Your task to perform on an android device: Search for Italian restaurants on Maps Image 0: 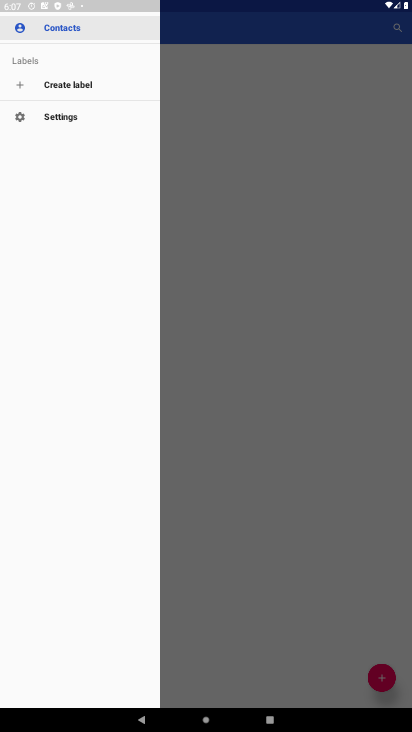
Step 0: press home button
Your task to perform on an android device: Search for Italian restaurants on Maps Image 1: 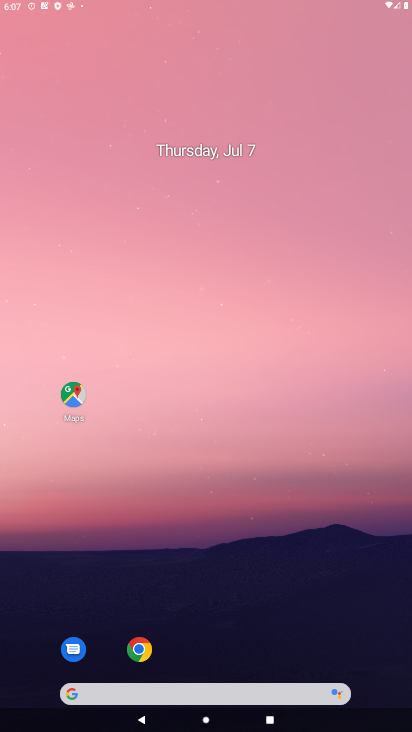
Step 1: drag from (387, 308) to (316, 58)
Your task to perform on an android device: Search for Italian restaurants on Maps Image 2: 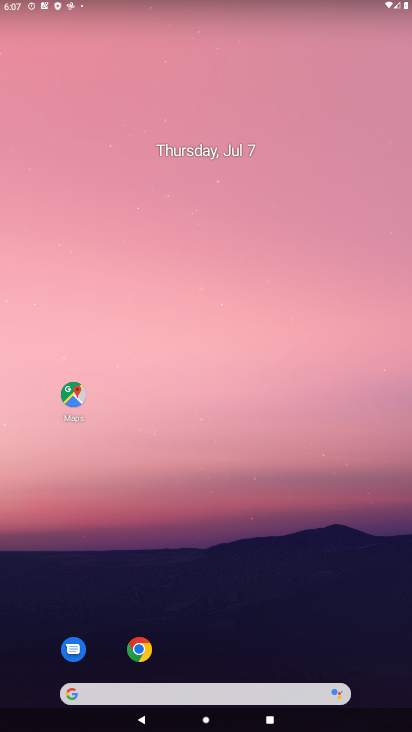
Step 2: drag from (364, 589) to (237, 3)
Your task to perform on an android device: Search for Italian restaurants on Maps Image 3: 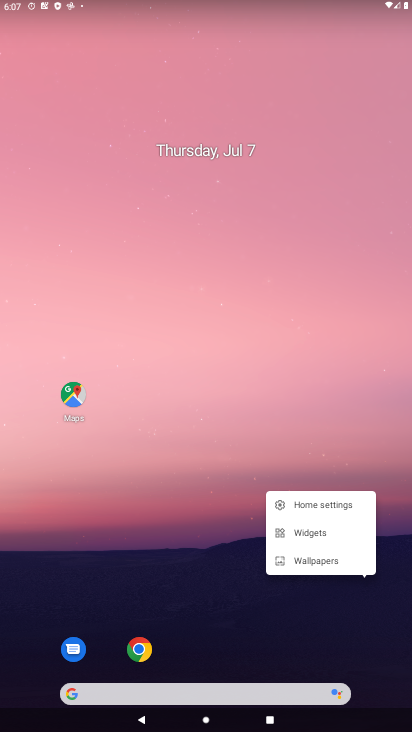
Step 3: drag from (259, 428) to (251, 16)
Your task to perform on an android device: Search for Italian restaurants on Maps Image 4: 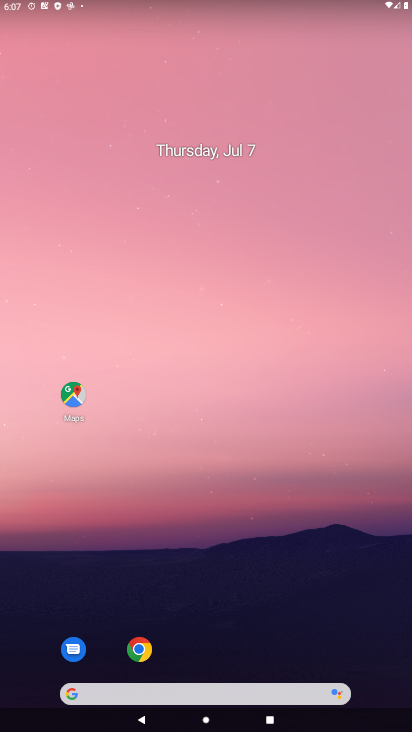
Step 4: drag from (294, 613) to (181, 64)
Your task to perform on an android device: Search for Italian restaurants on Maps Image 5: 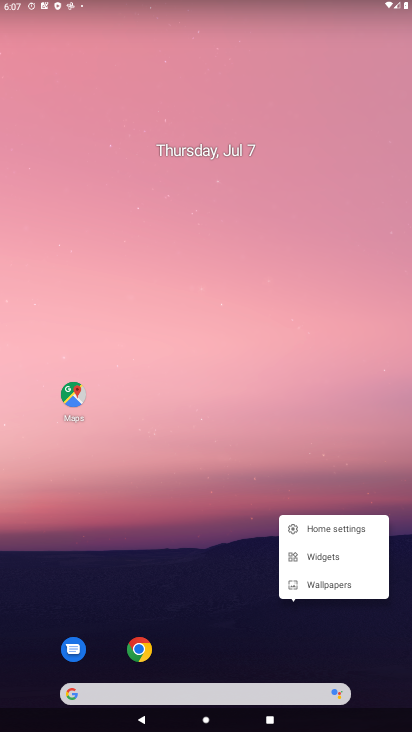
Step 5: click (339, 628)
Your task to perform on an android device: Search for Italian restaurants on Maps Image 6: 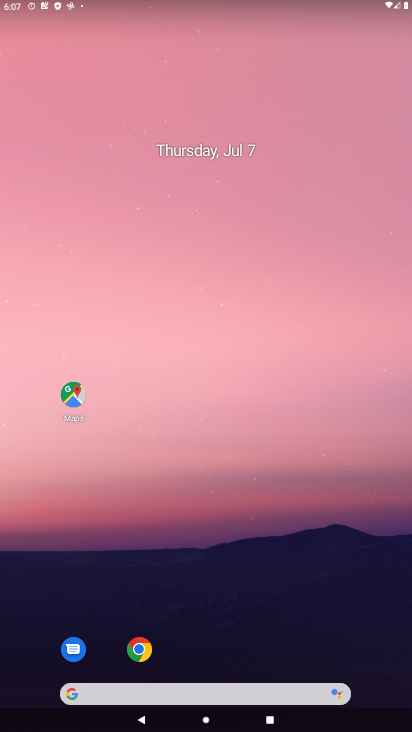
Step 6: drag from (369, 716) to (308, 34)
Your task to perform on an android device: Search for Italian restaurants on Maps Image 7: 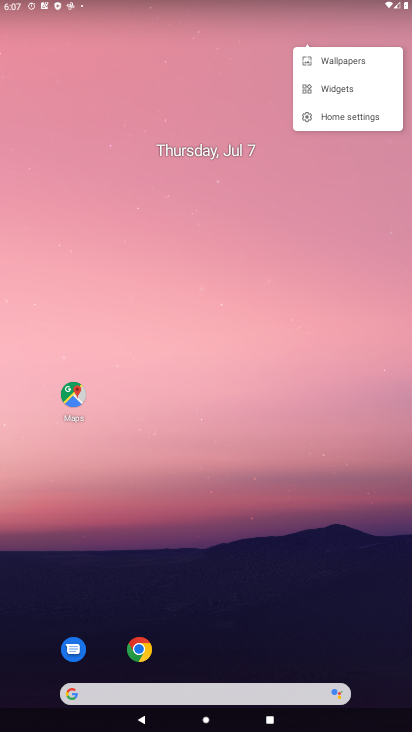
Step 7: click (76, 395)
Your task to perform on an android device: Search for Italian restaurants on Maps Image 8: 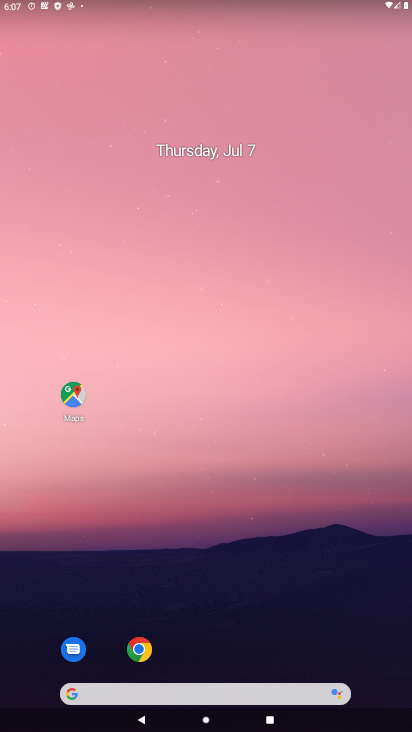
Step 8: click (77, 392)
Your task to perform on an android device: Search for Italian restaurants on Maps Image 9: 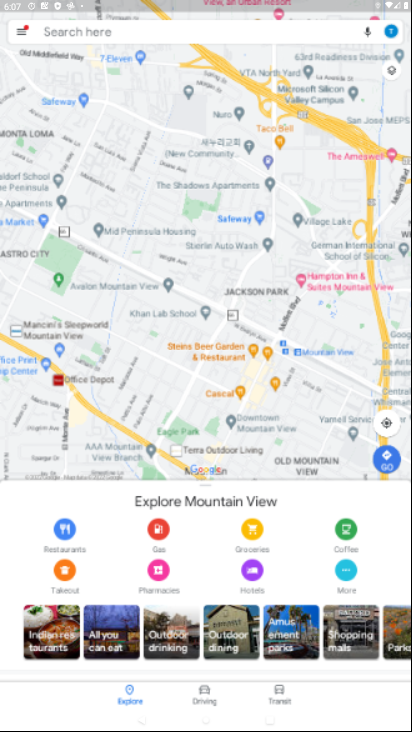
Step 9: click (179, 26)
Your task to perform on an android device: Search for Italian restaurants on Maps Image 10: 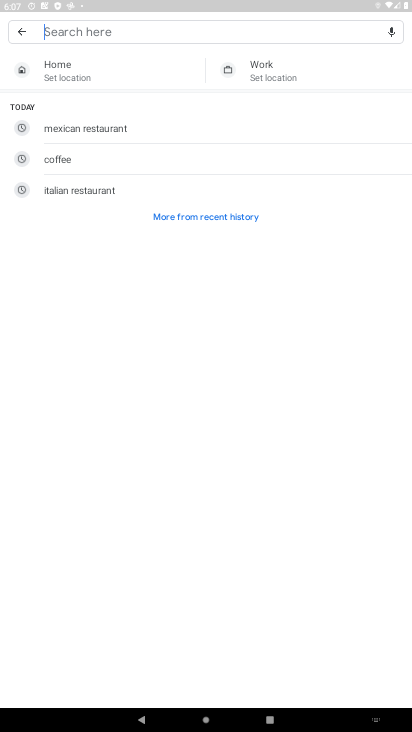
Step 10: click (109, 190)
Your task to perform on an android device: Search for Italian restaurants on Maps Image 11: 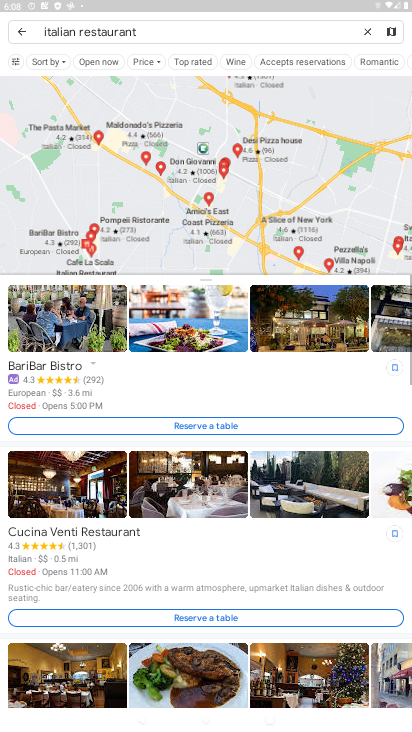
Step 11: task complete